Your task to perform on an android device: Open my contact list Image 0: 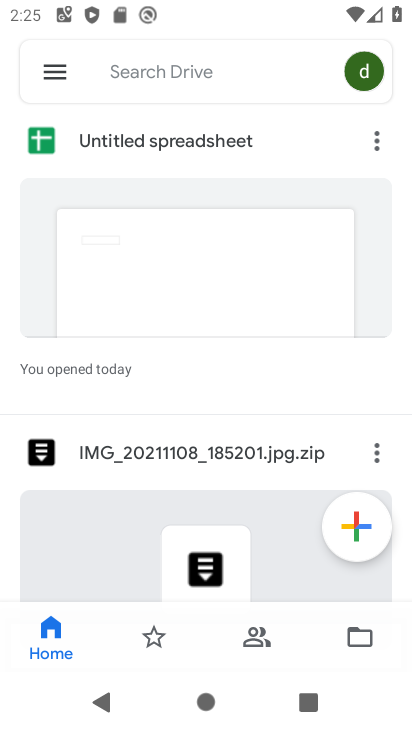
Step 0: press home button
Your task to perform on an android device: Open my contact list Image 1: 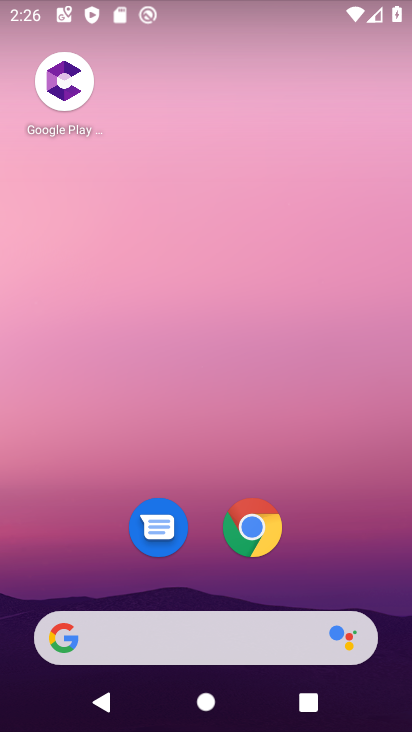
Step 1: drag from (315, 558) to (321, 125)
Your task to perform on an android device: Open my contact list Image 2: 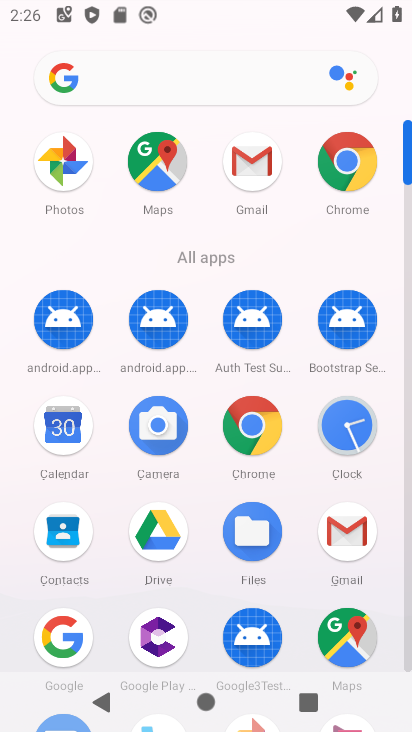
Step 2: drag from (278, 256) to (274, 17)
Your task to perform on an android device: Open my contact list Image 3: 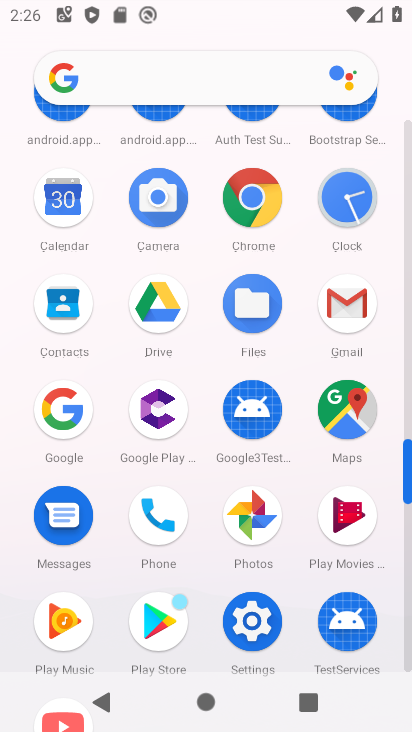
Step 3: click (61, 300)
Your task to perform on an android device: Open my contact list Image 4: 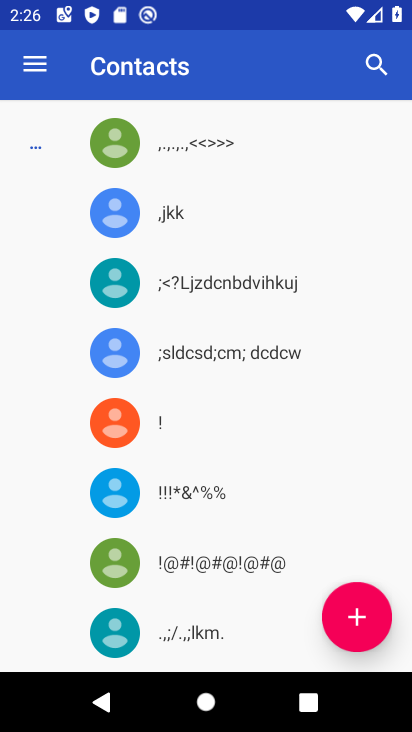
Step 4: task complete